Your task to perform on an android device: Open Google Maps Image 0: 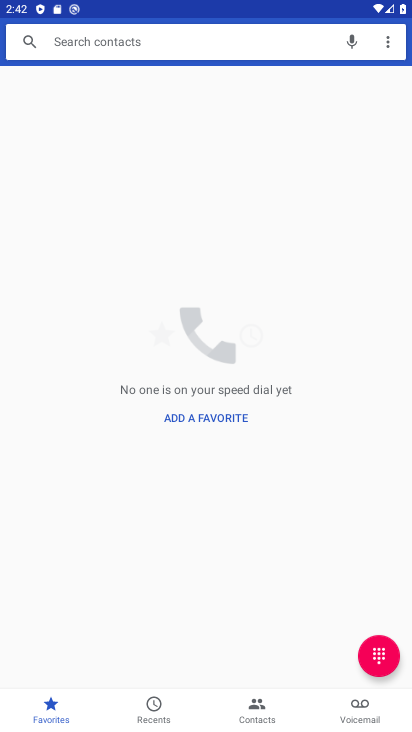
Step 0: press home button
Your task to perform on an android device: Open Google Maps Image 1: 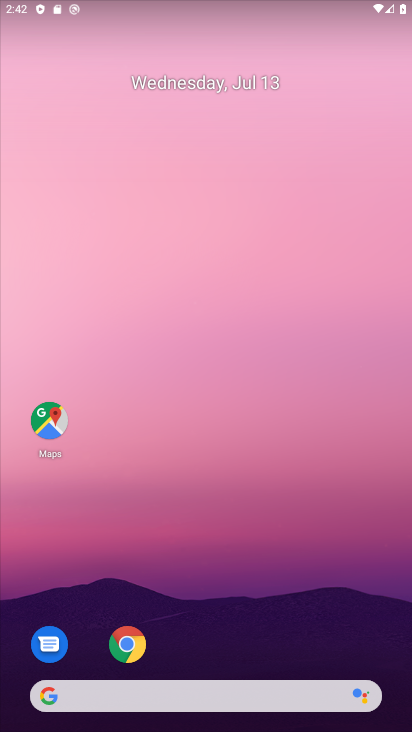
Step 1: click (50, 423)
Your task to perform on an android device: Open Google Maps Image 2: 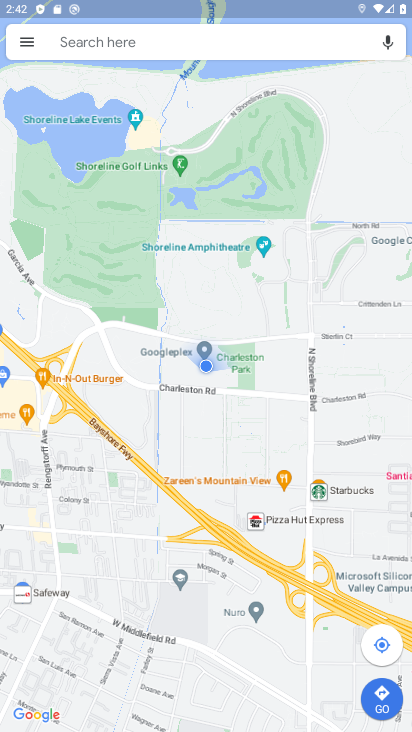
Step 2: task complete